Your task to perform on an android device: View the shopping cart on amazon.com. Add "bose quietcomfort 35" to the cart on amazon.com, then select checkout. Image 0: 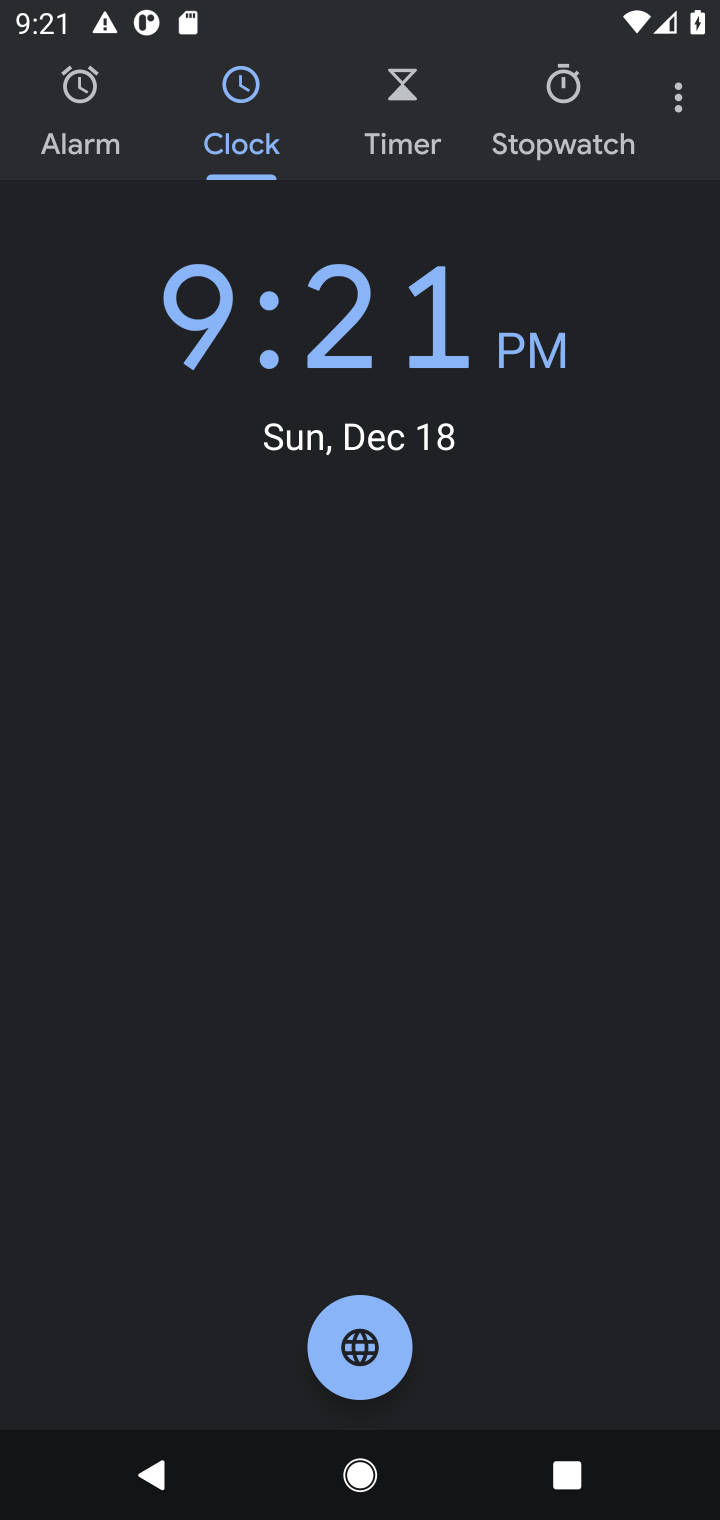
Step 0: press home button
Your task to perform on an android device: View the shopping cart on amazon.com. Add "bose quietcomfort 35" to the cart on amazon.com, then select checkout. Image 1: 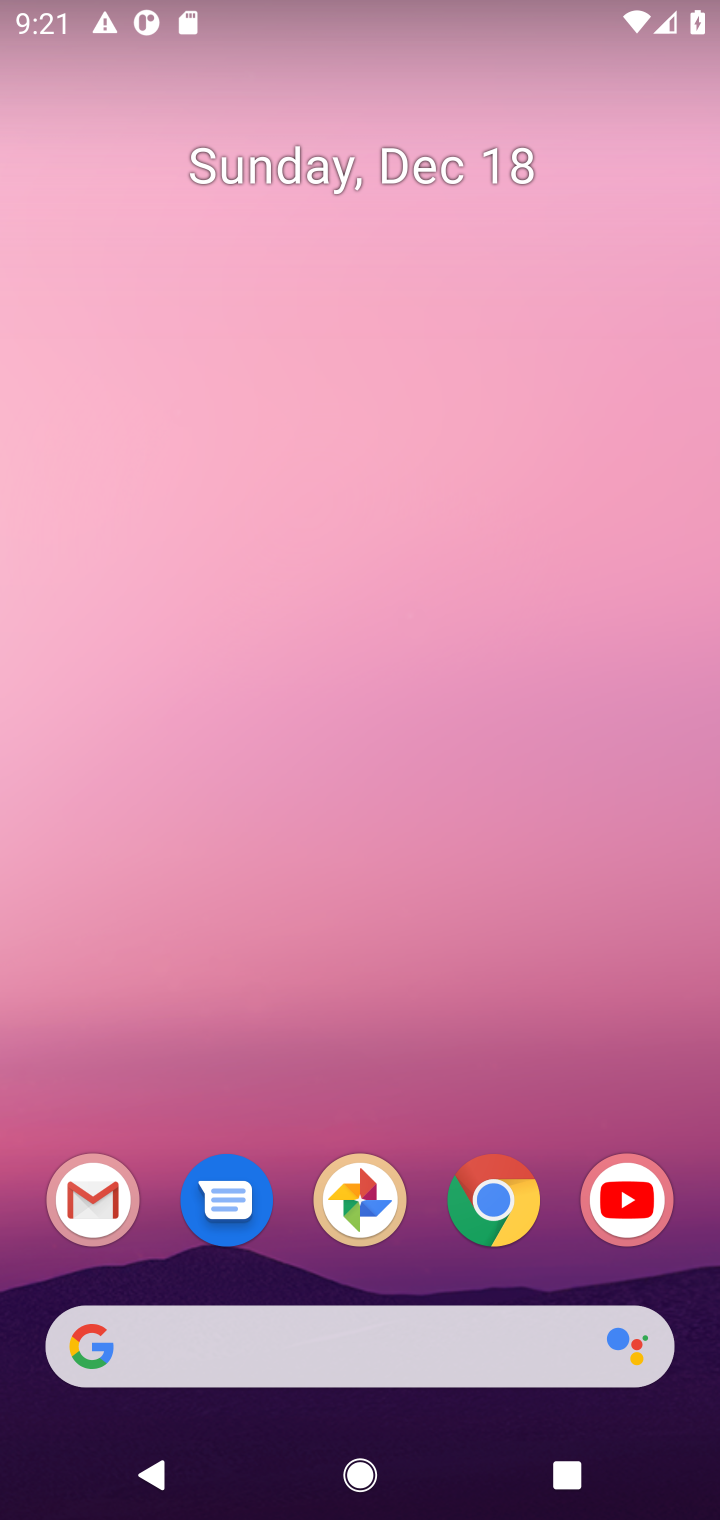
Step 1: click (485, 1202)
Your task to perform on an android device: View the shopping cart on amazon.com. Add "bose quietcomfort 35" to the cart on amazon.com, then select checkout. Image 2: 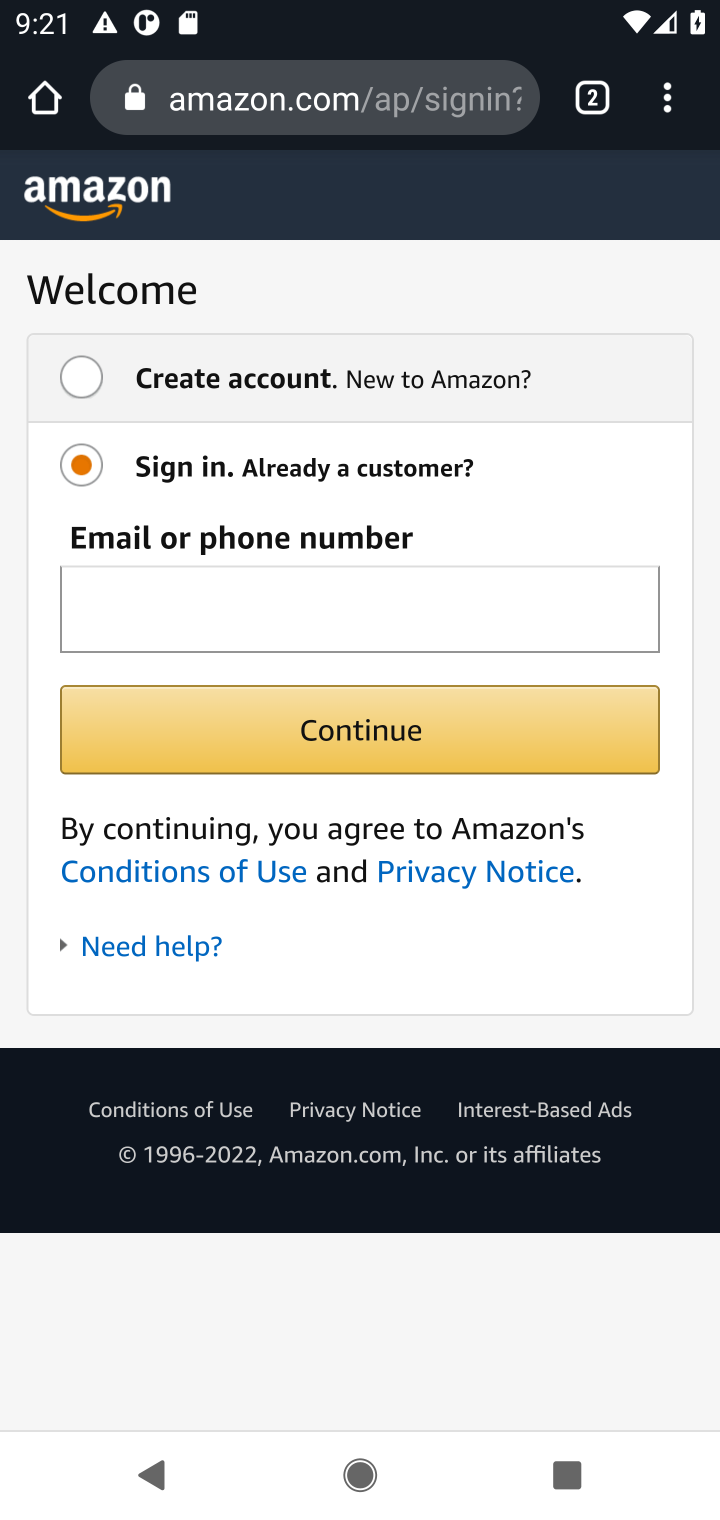
Step 2: press back button
Your task to perform on an android device: View the shopping cart on amazon.com. Add "bose quietcomfort 35" to the cart on amazon.com, then select checkout. Image 3: 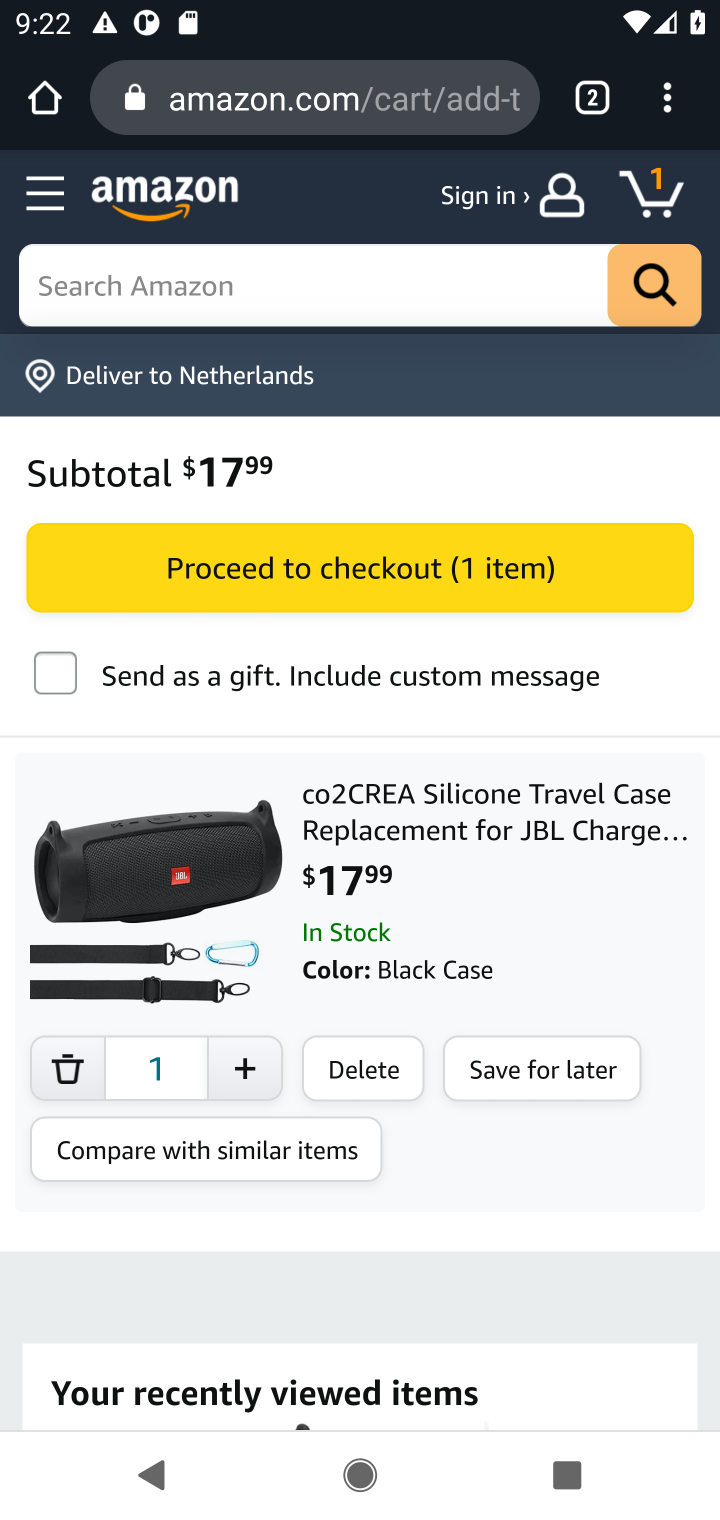
Step 3: click (104, 266)
Your task to perform on an android device: View the shopping cart on amazon.com. Add "bose quietcomfort 35" to the cart on amazon.com, then select checkout. Image 4: 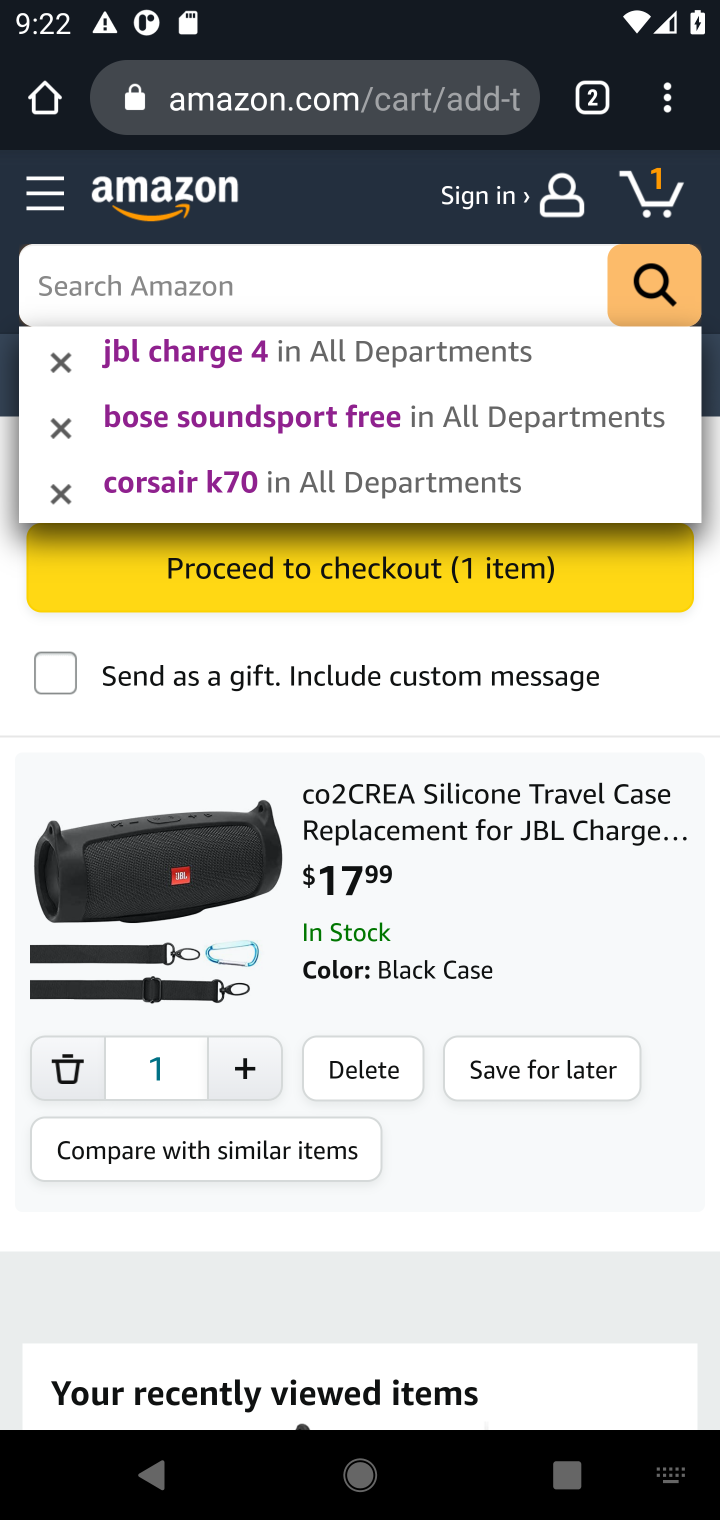
Step 4: type "bose quietcomfort 35"
Your task to perform on an android device: View the shopping cart on amazon.com. Add "bose quietcomfort 35" to the cart on amazon.com, then select checkout. Image 5: 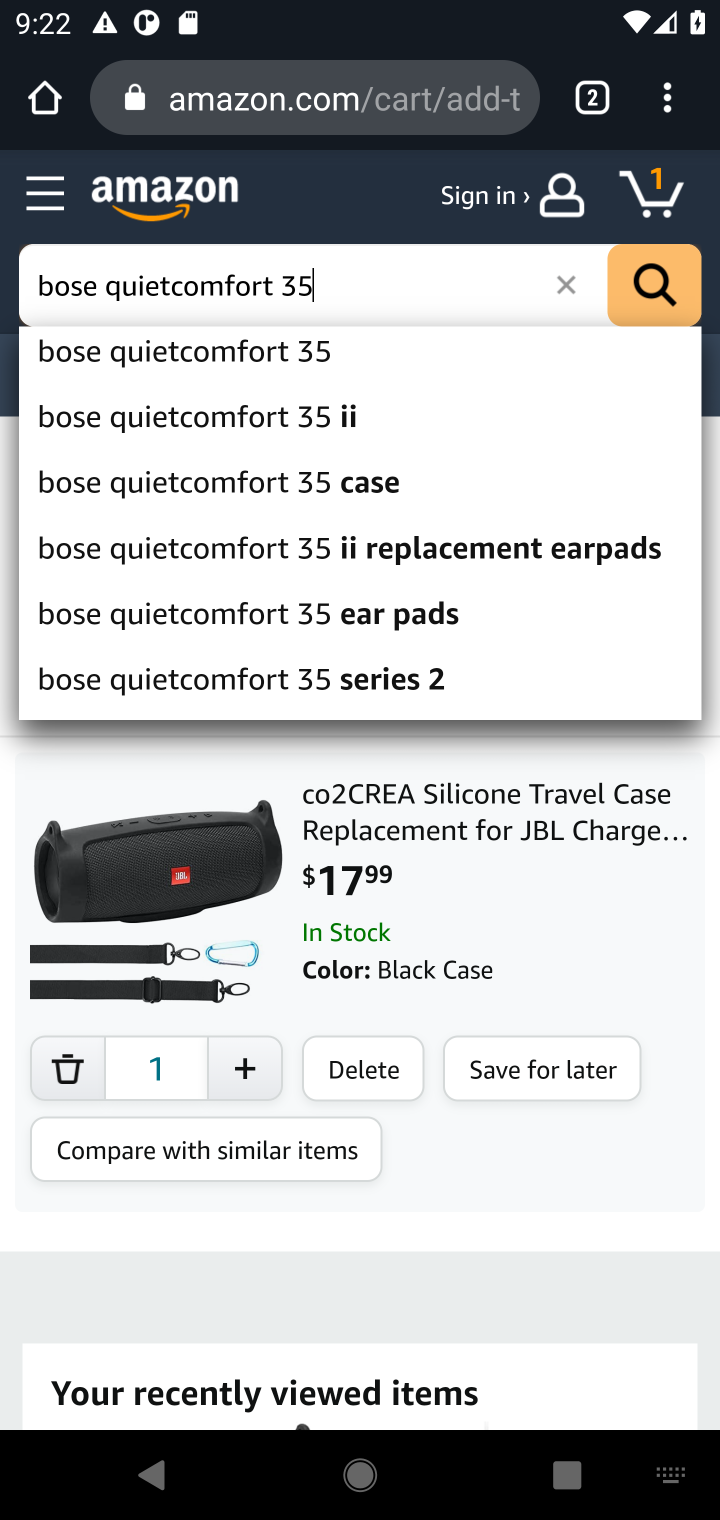
Step 5: click (141, 365)
Your task to perform on an android device: View the shopping cart on amazon.com. Add "bose quietcomfort 35" to the cart on amazon.com, then select checkout. Image 6: 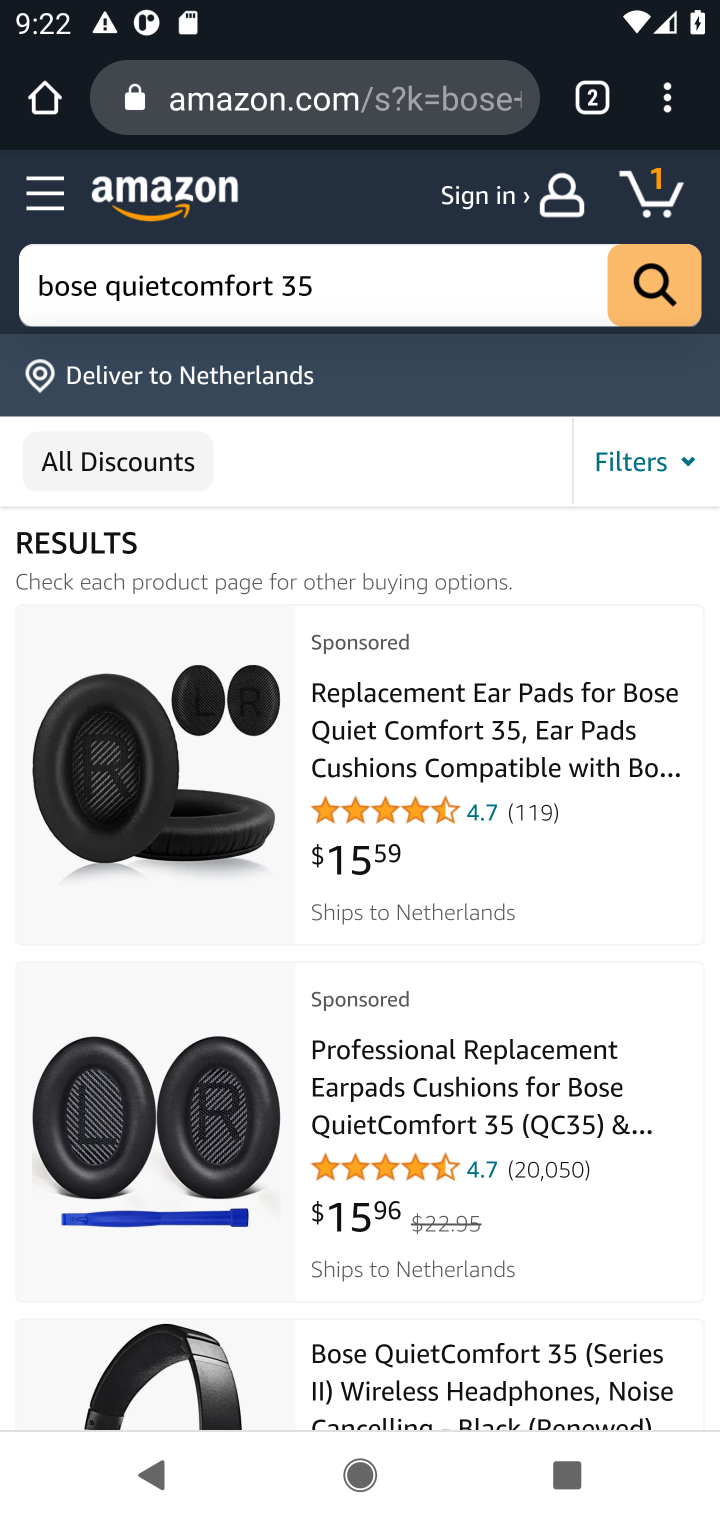
Step 6: drag from (283, 1013) to (277, 837)
Your task to perform on an android device: View the shopping cart on amazon.com. Add "bose quietcomfort 35" to the cart on amazon.com, then select checkout. Image 7: 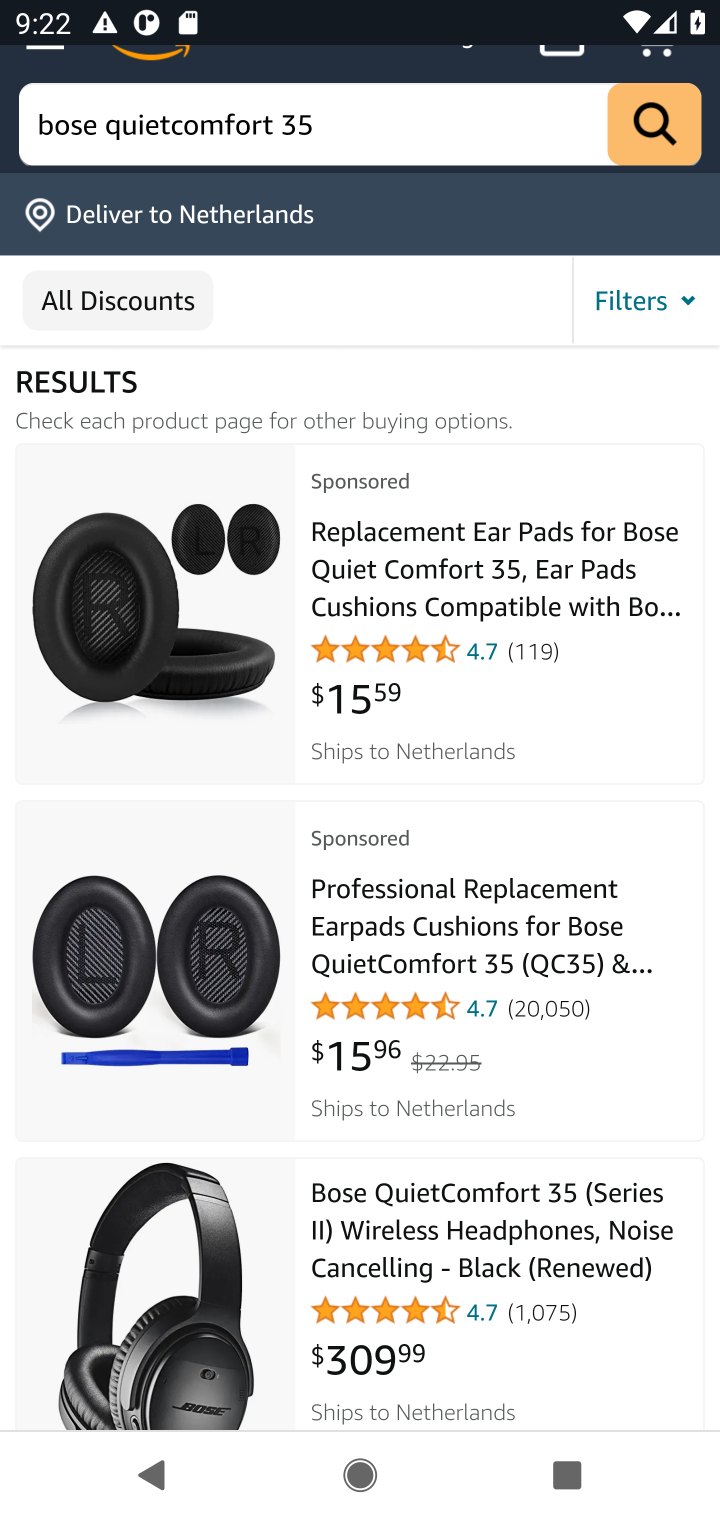
Step 7: click (412, 605)
Your task to perform on an android device: View the shopping cart on amazon.com. Add "bose quietcomfort 35" to the cart on amazon.com, then select checkout. Image 8: 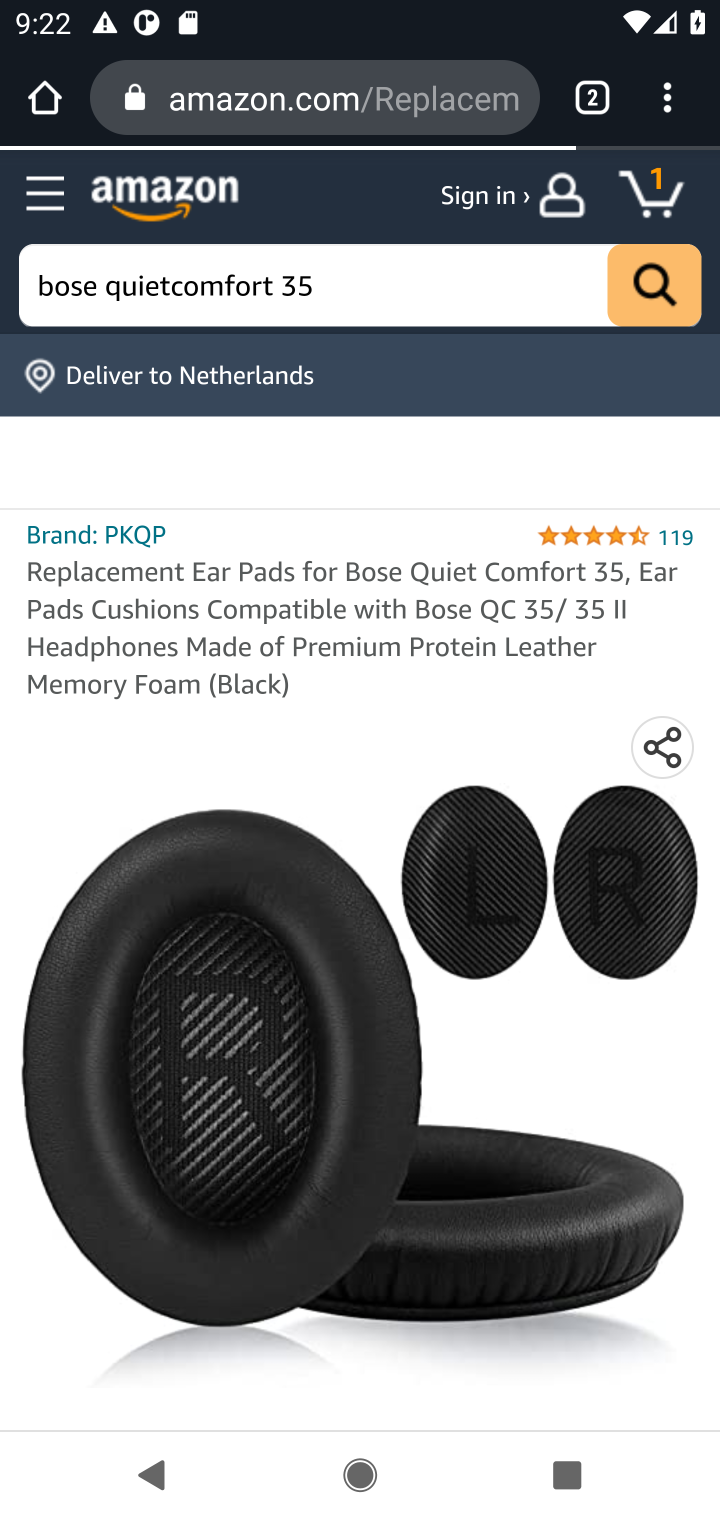
Step 8: drag from (293, 926) to (261, 371)
Your task to perform on an android device: View the shopping cart on amazon.com. Add "bose quietcomfort 35" to the cart on amazon.com, then select checkout. Image 9: 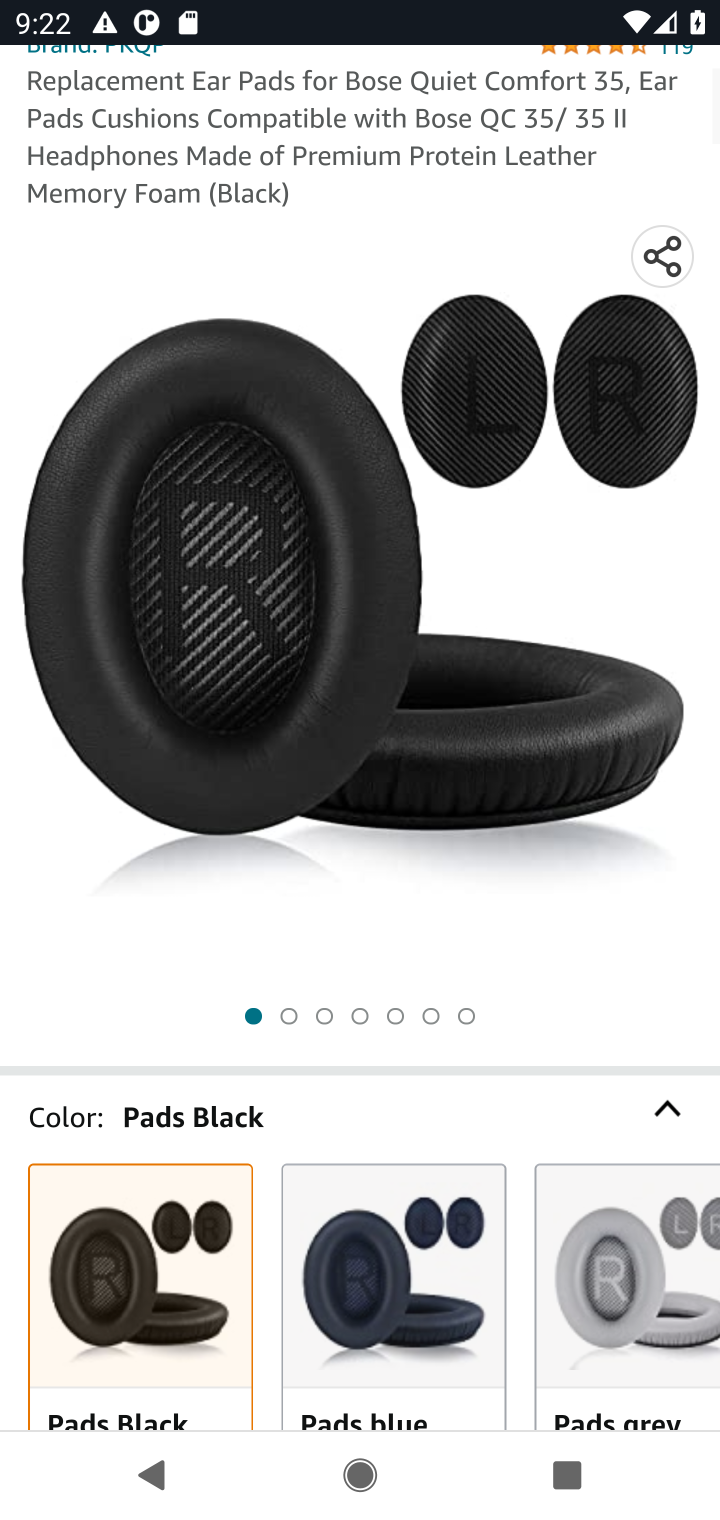
Step 9: drag from (249, 1085) to (201, 326)
Your task to perform on an android device: View the shopping cart on amazon.com. Add "bose quietcomfort 35" to the cart on amazon.com, then select checkout. Image 10: 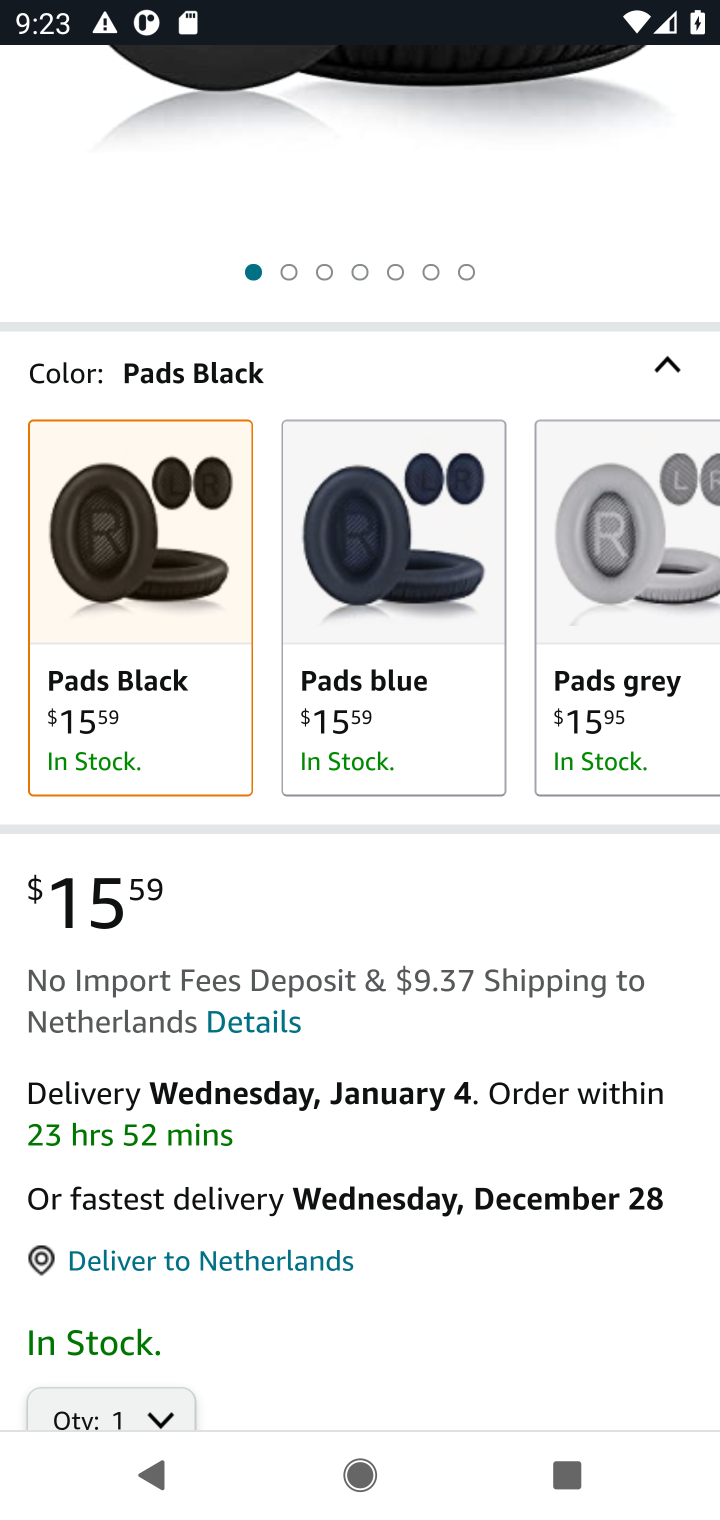
Step 10: drag from (259, 1044) to (284, 350)
Your task to perform on an android device: View the shopping cart on amazon.com. Add "bose quietcomfort 35" to the cart on amazon.com, then select checkout. Image 11: 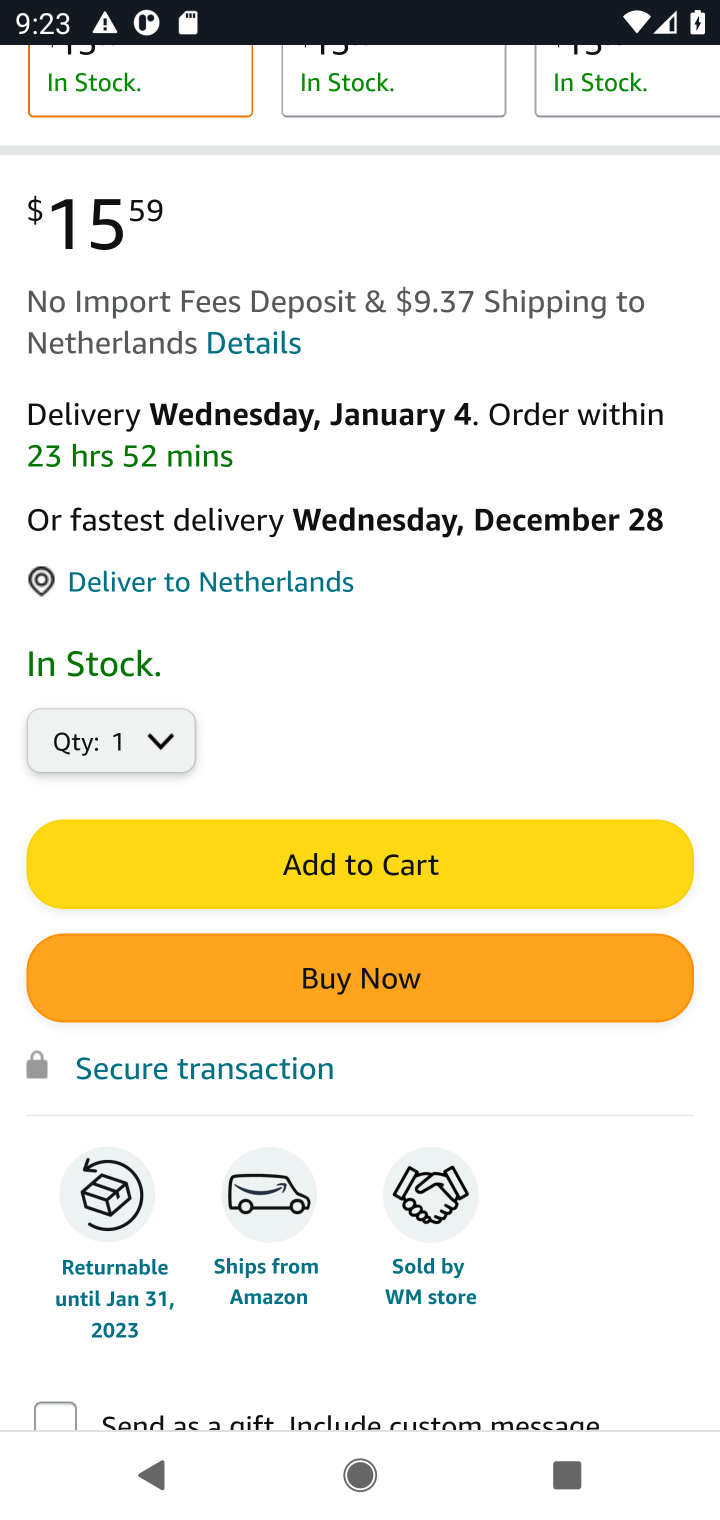
Step 11: click (321, 846)
Your task to perform on an android device: View the shopping cart on amazon.com. Add "bose quietcomfort 35" to the cart on amazon.com, then select checkout. Image 12: 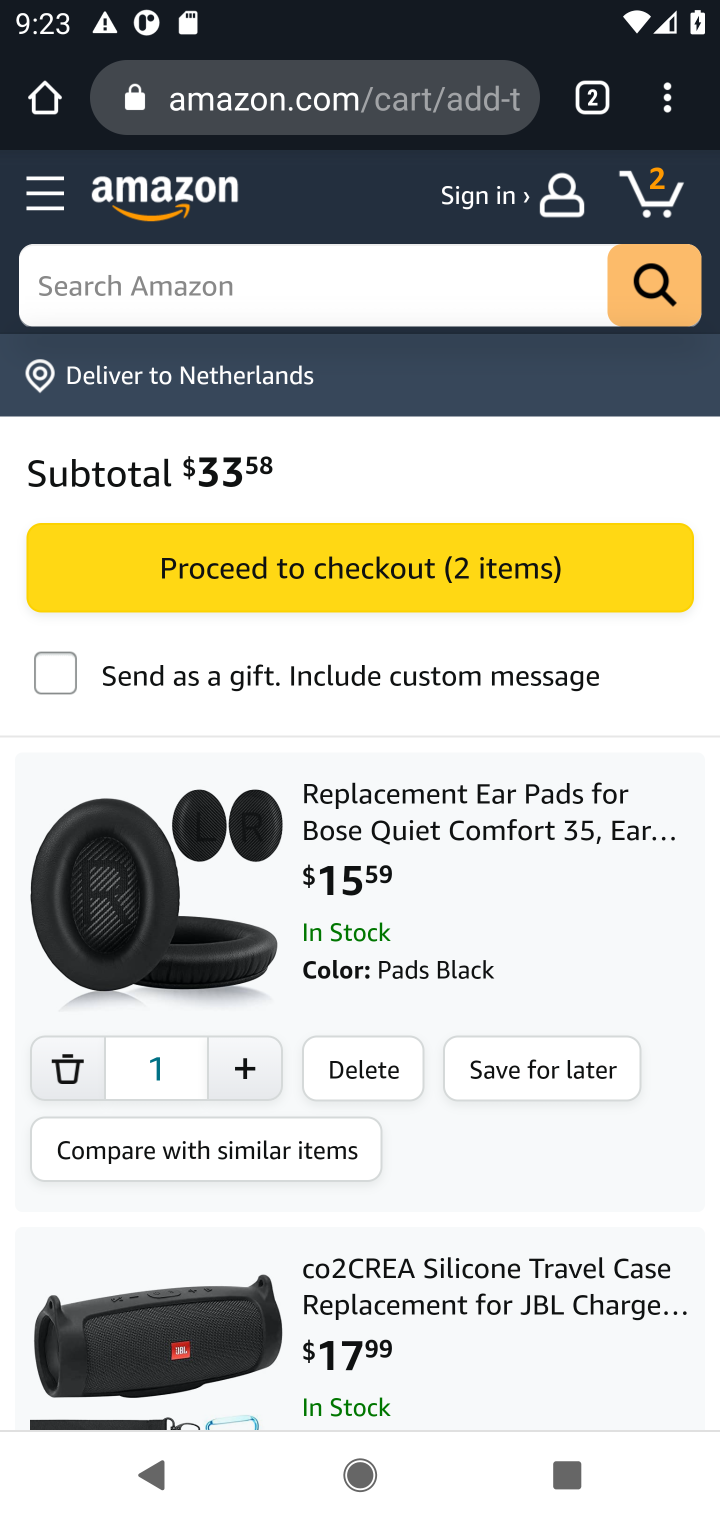
Step 12: click (329, 557)
Your task to perform on an android device: View the shopping cart on amazon.com. Add "bose quietcomfort 35" to the cart on amazon.com, then select checkout. Image 13: 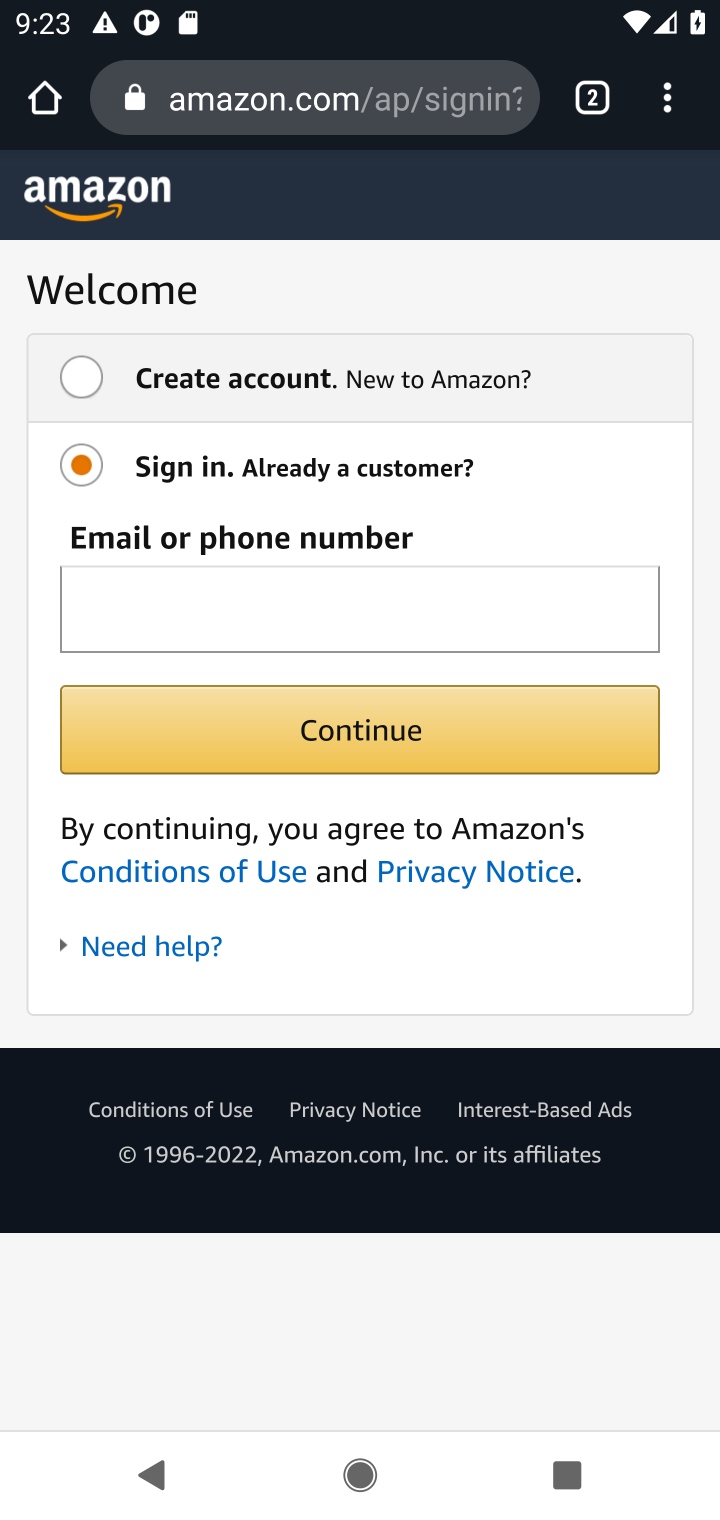
Step 13: task complete